Your task to perform on an android device: show emergency info Image 0: 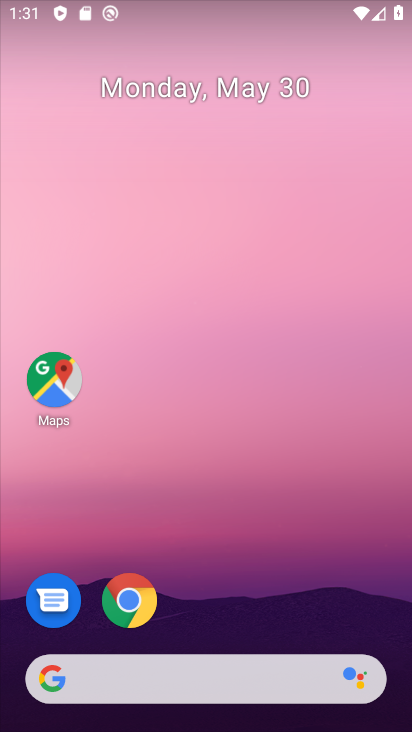
Step 0: drag from (177, 631) to (219, 24)
Your task to perform on an android device: show emergency info Image 1: 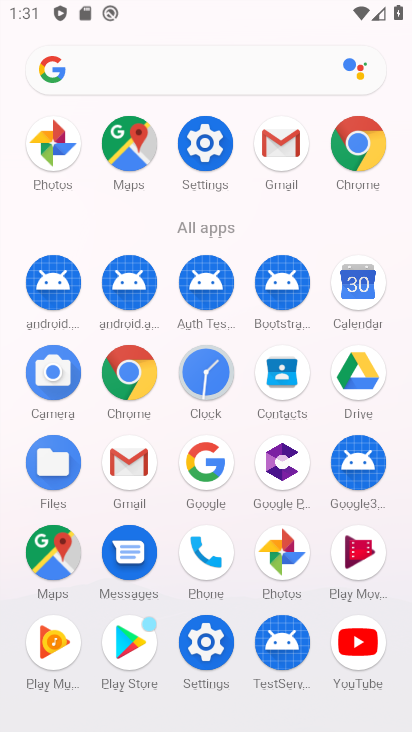
Step 1: click (195, 149)
Your task to perform on an android device: show emergency info Image 2: 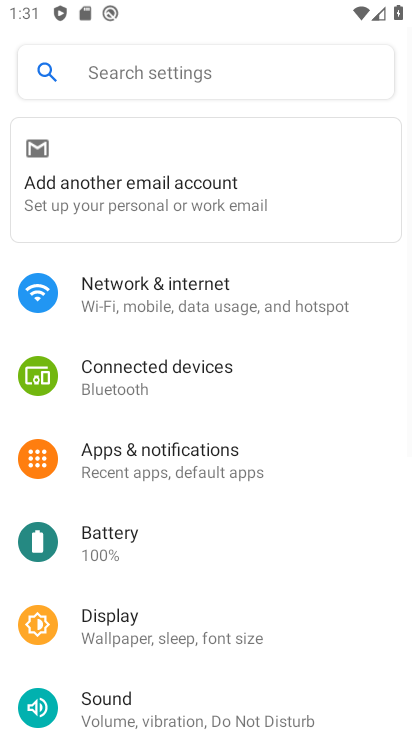
Step 2: drag from (239, 583) to (224, 175)
Your task to perform on an android device: show emergency info Image 3: 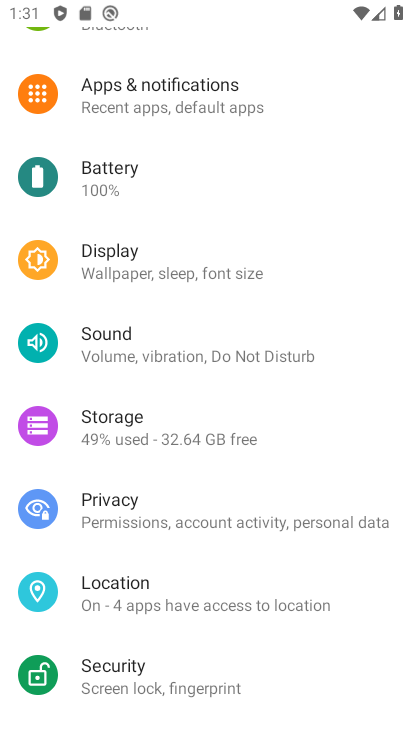
Step 3: drag from (213, 588) to (225, 69)
Your task to perform on an android device: show emergency info Image 4: 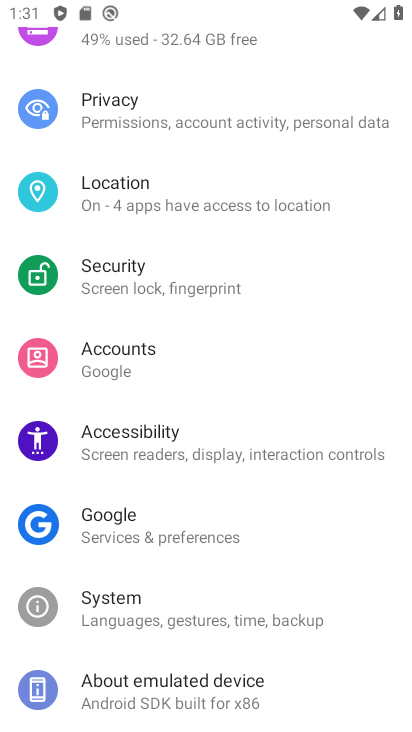
Step 4: click (96, 681)
Your task to perform on an android device: show emergency info Image 5: 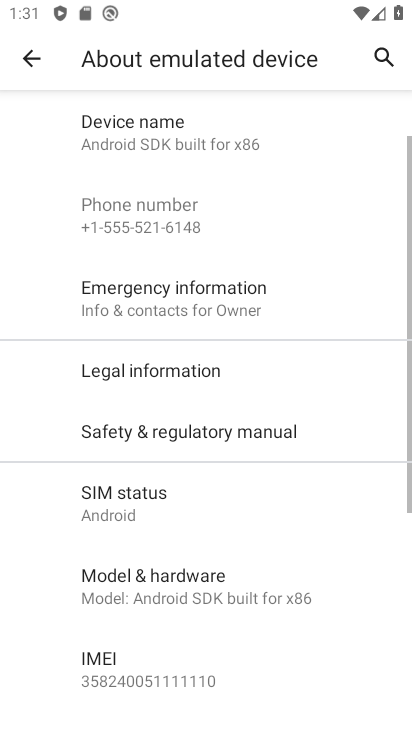
Step 5: click (158, 315)
Your task to perform on an android device: show emergency info Image 6: 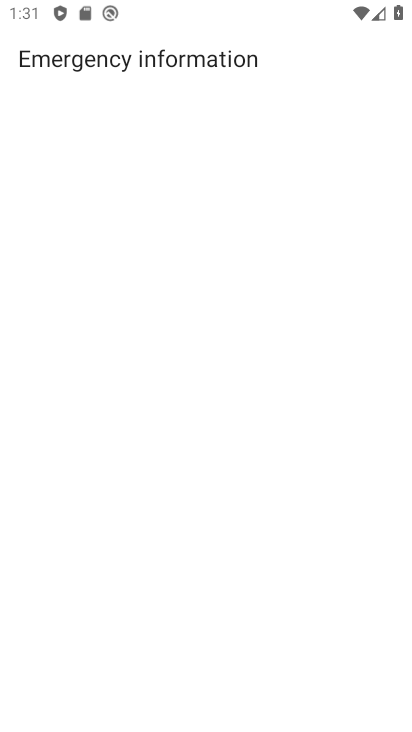
Step 6: task complete